Your task to perform on an android device: Go to settings Image 0: 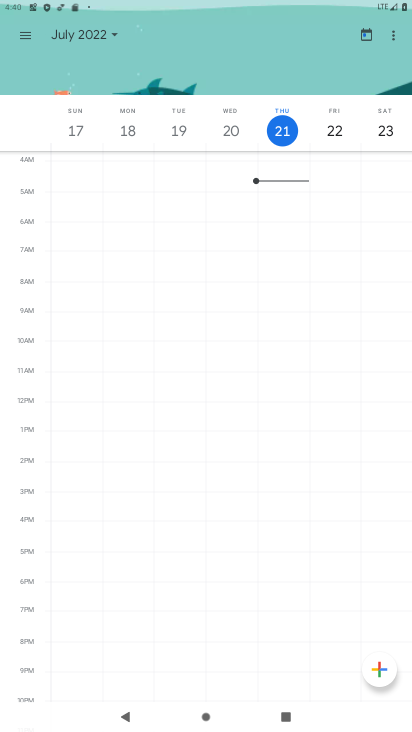
Step 0: press home button
Your task to perform on an android device: Go to settings Image 1: 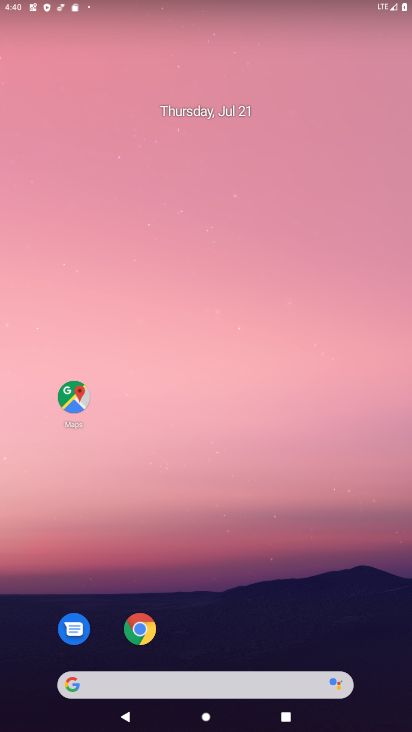
Step 1: drag from (231, 646) to (223, 197)
Your task to perform on an android device: Go to settings Image 2: 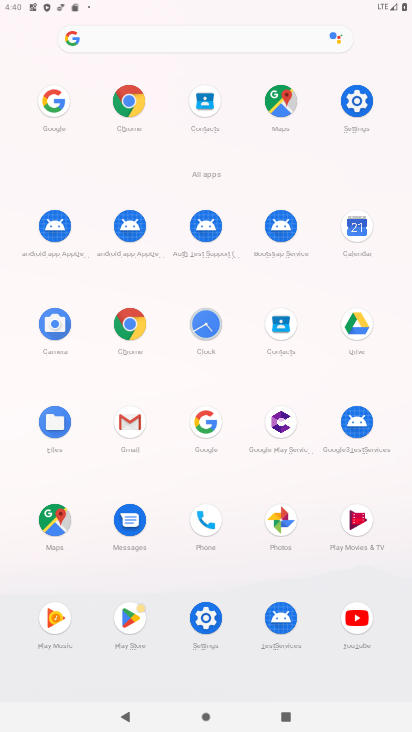
Step 2: click (356, 95)
Your task to perform on an android device: Go to settings Image 3: 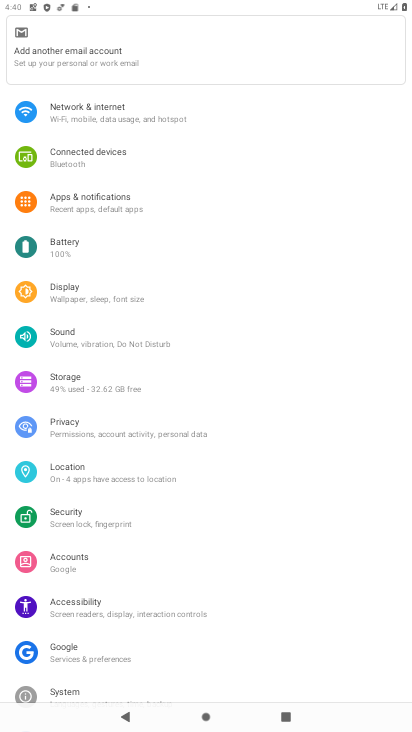
Step 3: task complete